Your task to perform on an android device: Open Maps and search for coffee Image 0: 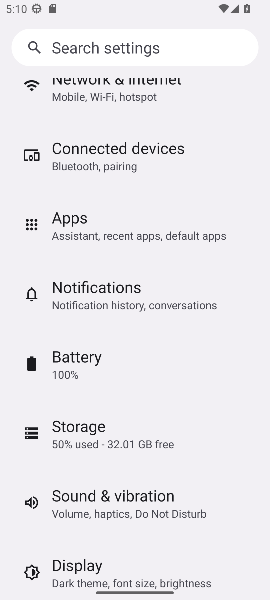
Step 0: press home button
Your task to perform on an android device: Open Maps and search for coffee Image 1: 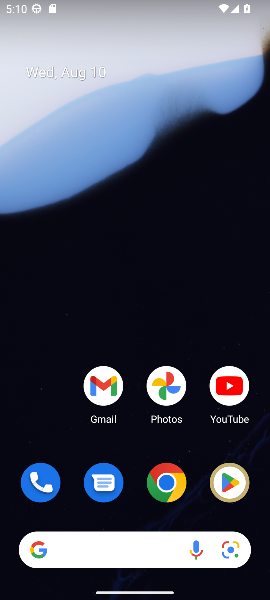
Step 1: drag from (38, 417) to (91, 57)
Your task to perform on an android device: Open Maps and search for coffee Image 2: 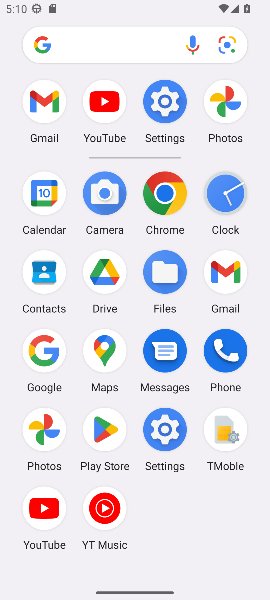
Step 2: click (107, 352)
Your task to perform on an android device: Open Maps and search for coffee Image 3: 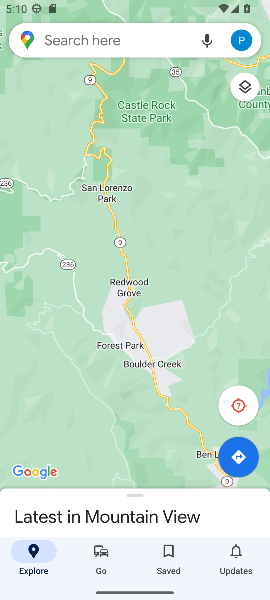
Step 3: click (159, 44)
Your task to perform on an android device: Open Maps and search for coffee Image 4: 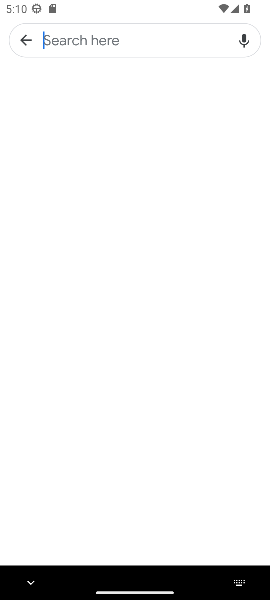
Step 4: type "coffee"
Your task to perform on an android device: Open Maps and search for coffee Image 5: 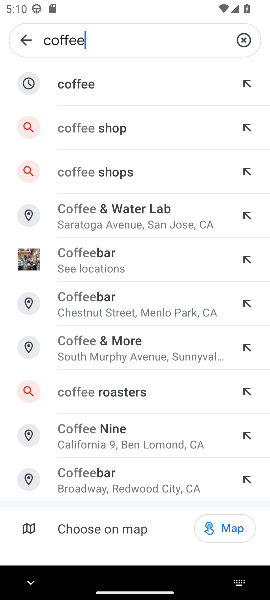
Step 5: click (89, 88)
Your task to perform on an android device: Open Maps and search for coffee Image 6: 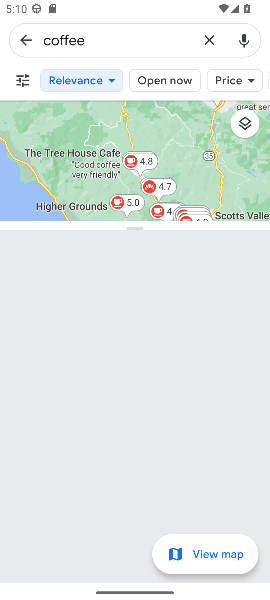
Step 6: task complete